Your task to perform on an android device: Open Google Image 0: 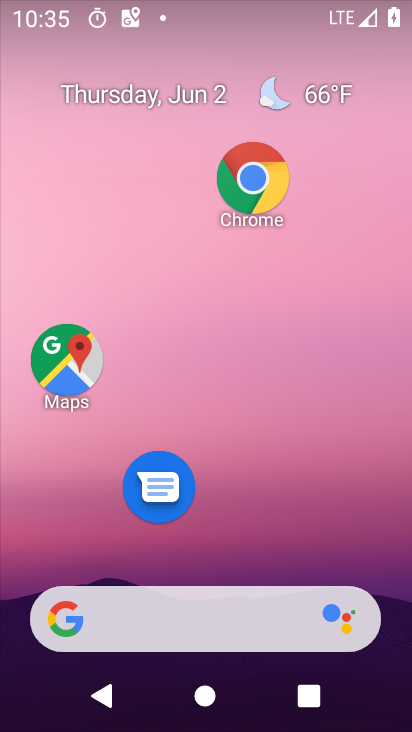
Step 0: drag from (240, 721) to (250, 137)
Your task to perform on an android device: Open Google Image 1: 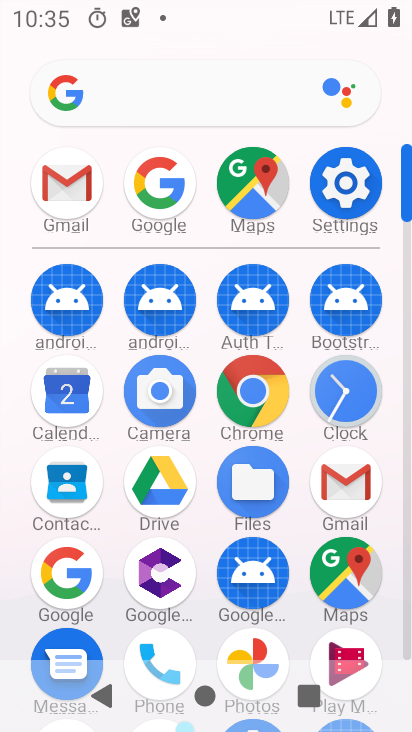
Step 1: click (55, 571)
Your task to perform on an android device: Open Google Image 2: 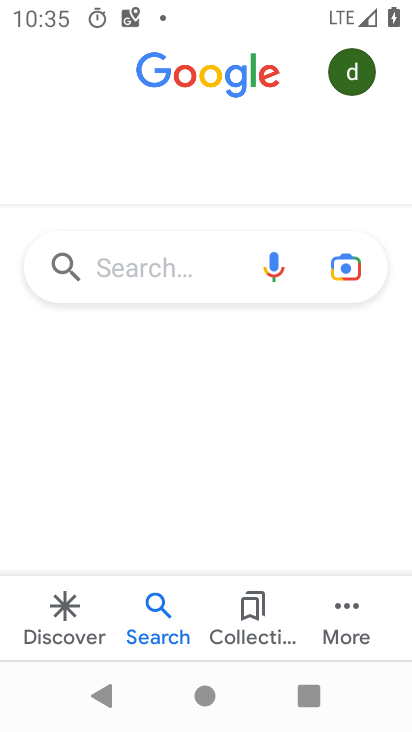
Step 2: task complete